Your task to perform on an android device: Open the calendar app, open the side menu, and click the "Day" option Image 0: 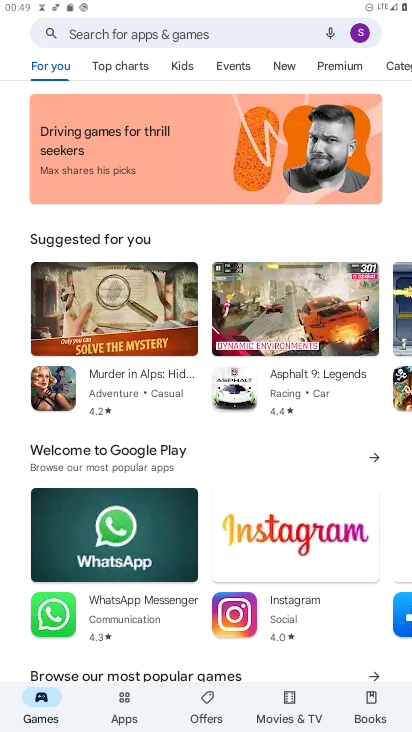
Step 0: press home button
Your task to perform on an android device: Open the calendar app, open the side menu, and click the "Day" option Image 1: 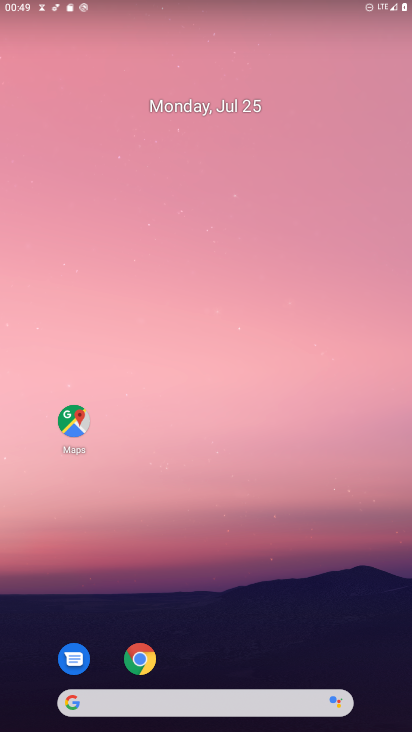
Step 1: drag from (283, 701) to (244, 23)
Your task to perform on an android device: Open the calendar app, open the side menu, and click the "Day" option Image 2: 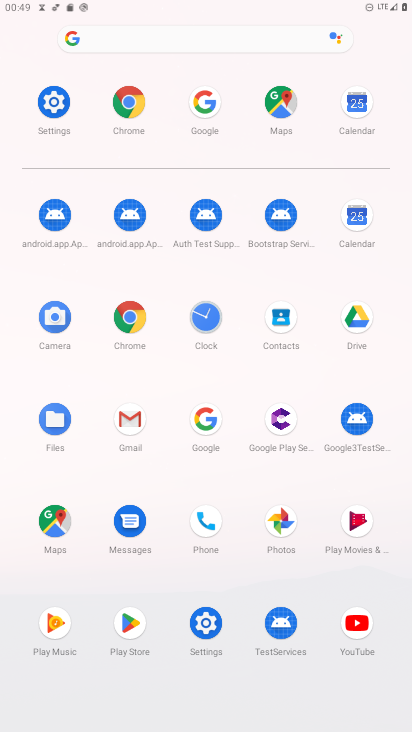
Step 2: click (346, 103)
Your task to perform on an android device: Open the calendar app, open the side menu, and click the "Day" option Image 3: 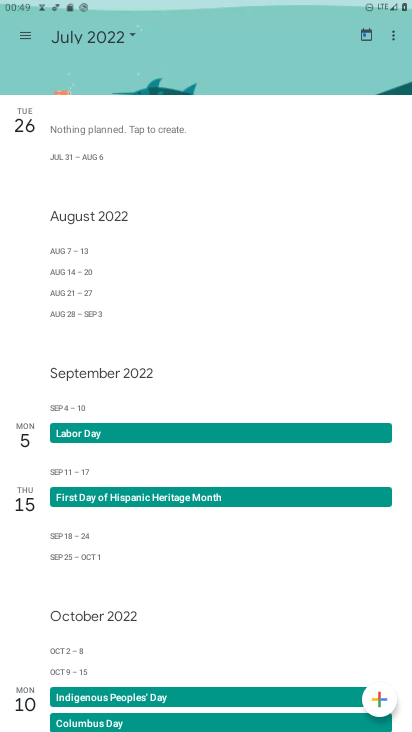
Step 3: click (16, 26)
Your task to perform on an android device: Open the calendar app, open the side menu, and click the "Day" option Image 4: 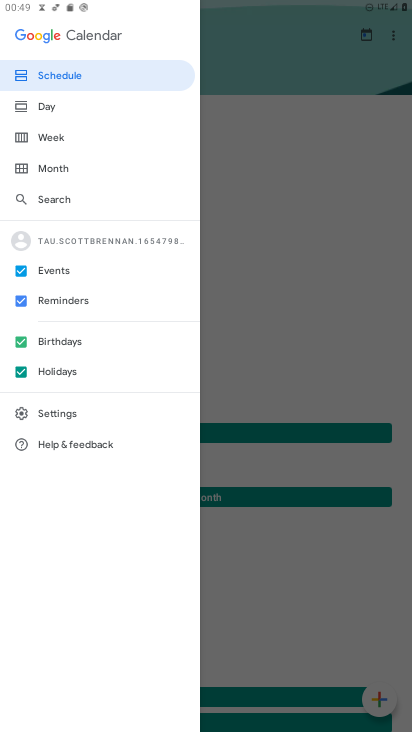
Step 4: click (32, 100)
Your task to perform on an android device: Open the calendar app, open the side menu, and click the "Day" option Image 5: 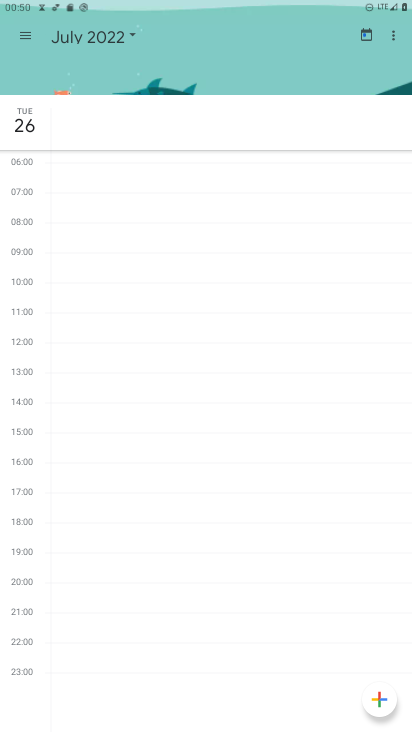
Step 5: task complete